Your task to perform on an android device: allow cookies in the chrome app Image 0: 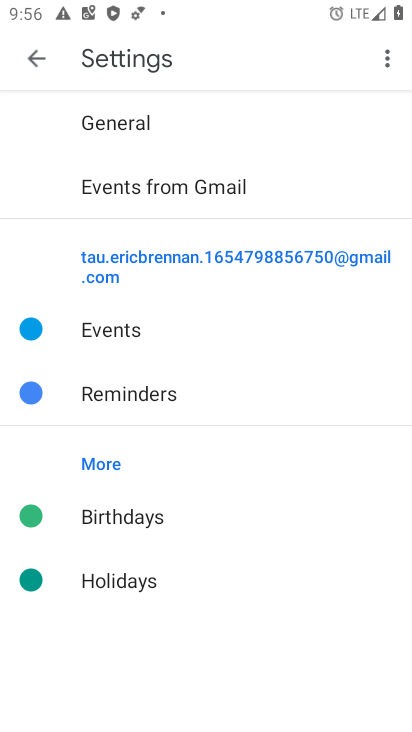
Step 0: press home button
Your task to perform on an android device: allow cookies in the chrome app Image 1: 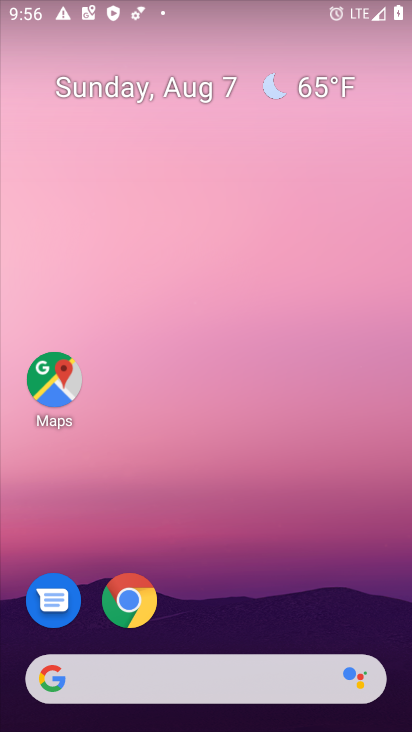
Step 1: click (122, 603)
Your task to perform on an android device: allow cookies in the chrome app Image 2: 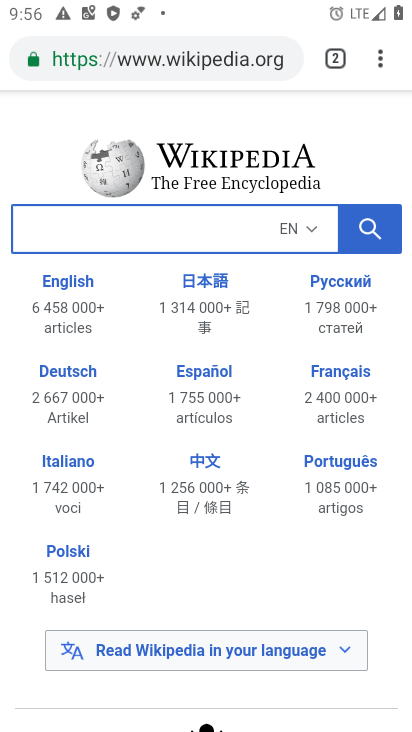
Step 2: click (381, 58)
Your task to perform on an android device: allow cookies in the chrome app Image 3: 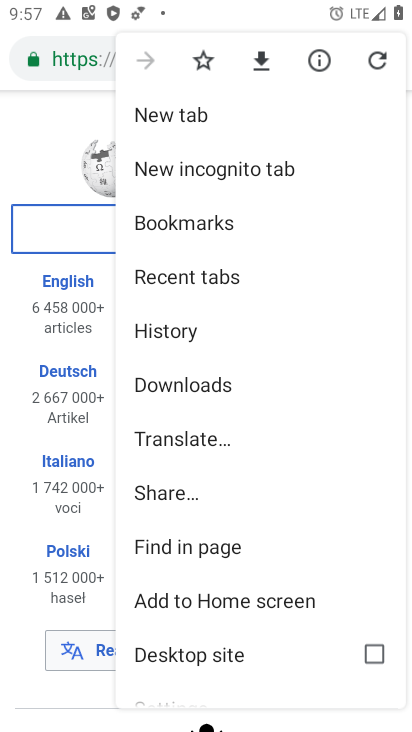
Step 3: click (184, 195)
Your task to perform on an android device: allow cookies in the chrome app Image 4: 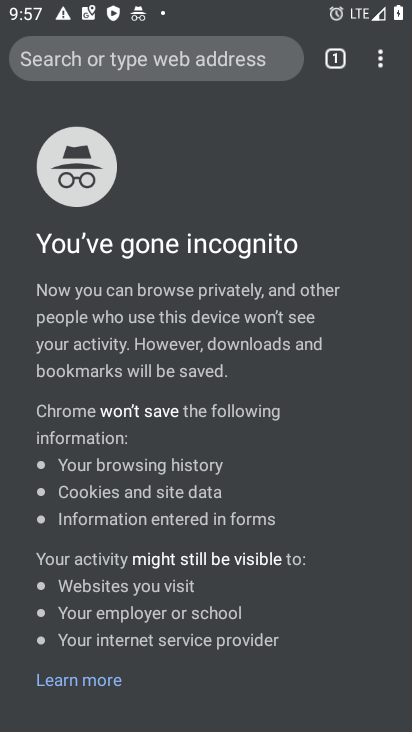
Step 4: click (376, 64)
Your task to perform on an android device: allow cookies in the chrome app Image 5: 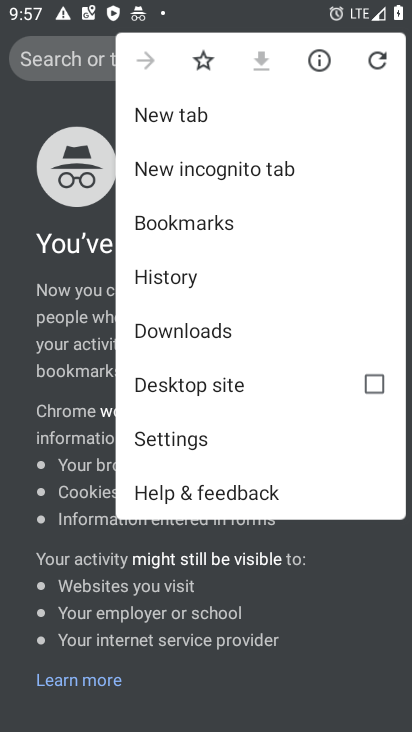
Step 5: click (187, 440)
Your task to perform on an android device: allow cookies in the chrome app Image 6: 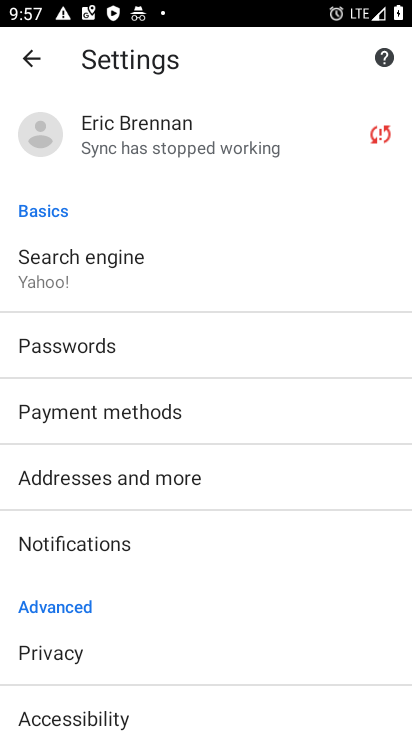
Step 6: drag from (94, 585) to (127, 215)
Your task to perform on an android device: allow cookies in the chrome app Image 7: 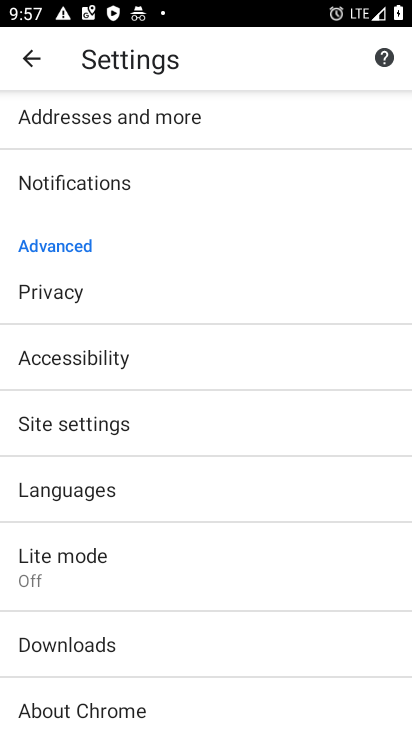
Step 7: click (107, 423)
Your task to perform on an android device: allow cookies in the chrome app Image 8: 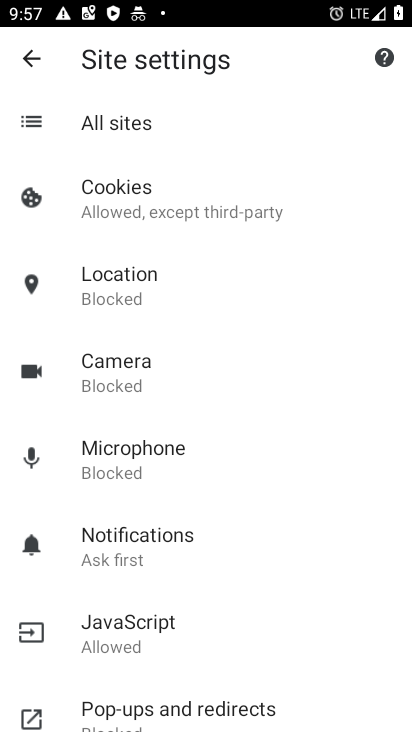
Step 8: click (147, 197)
Your task to perform on an android device: allow cookies in the chrome app Image 9: 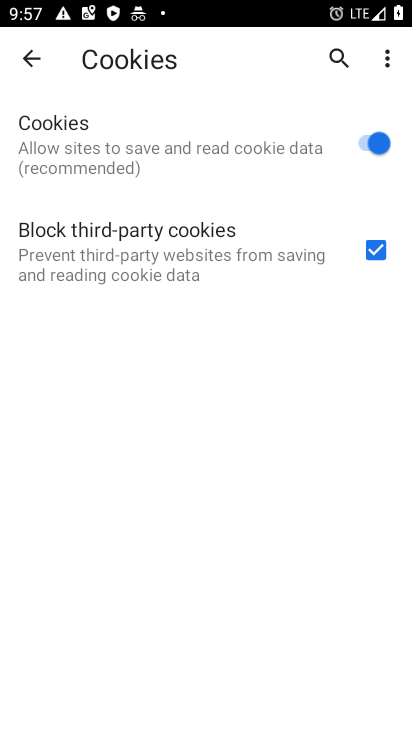
Step 9: task complete